Your task to perform on an android device: empty trash in google photos Image 0: 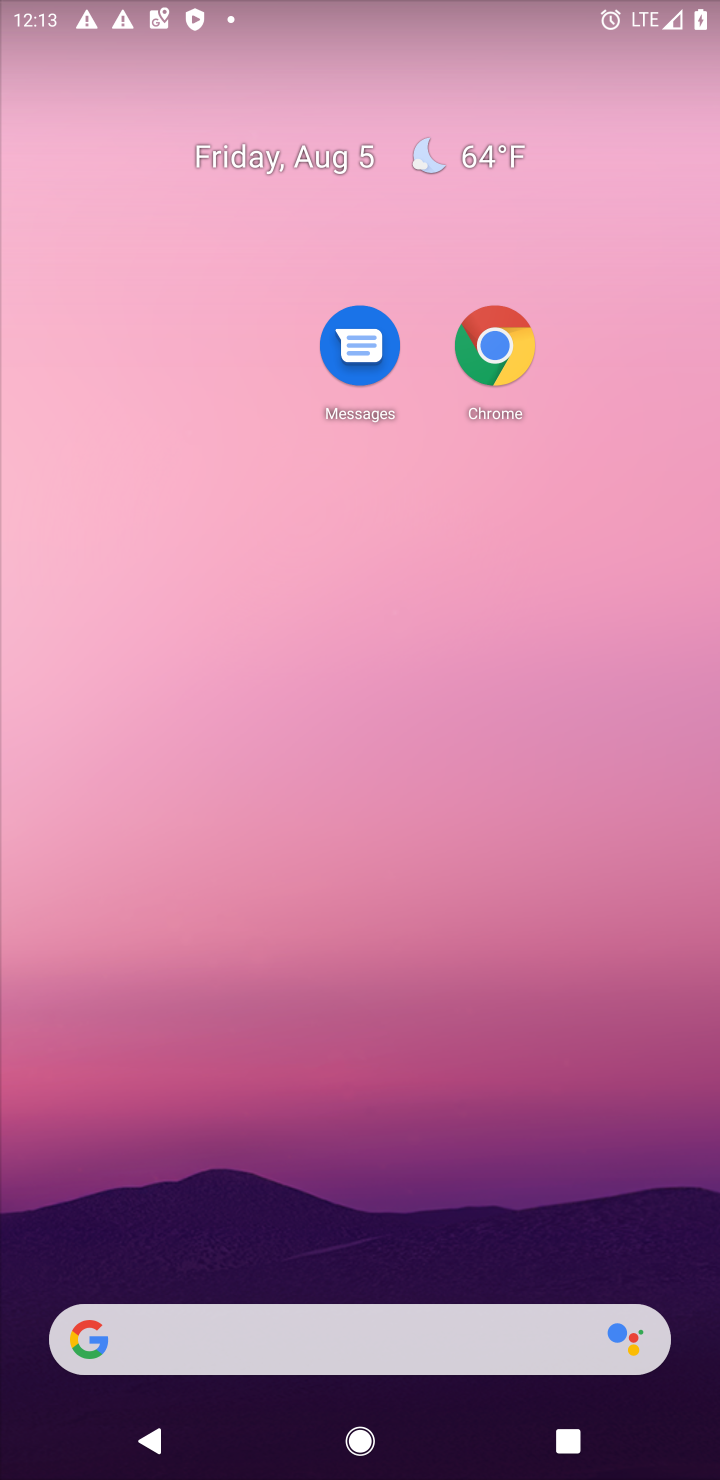
Step 0: drag from (379, 874) to (364, 19)
Your task to perform on an android device: empty trash in google photos Image 1: 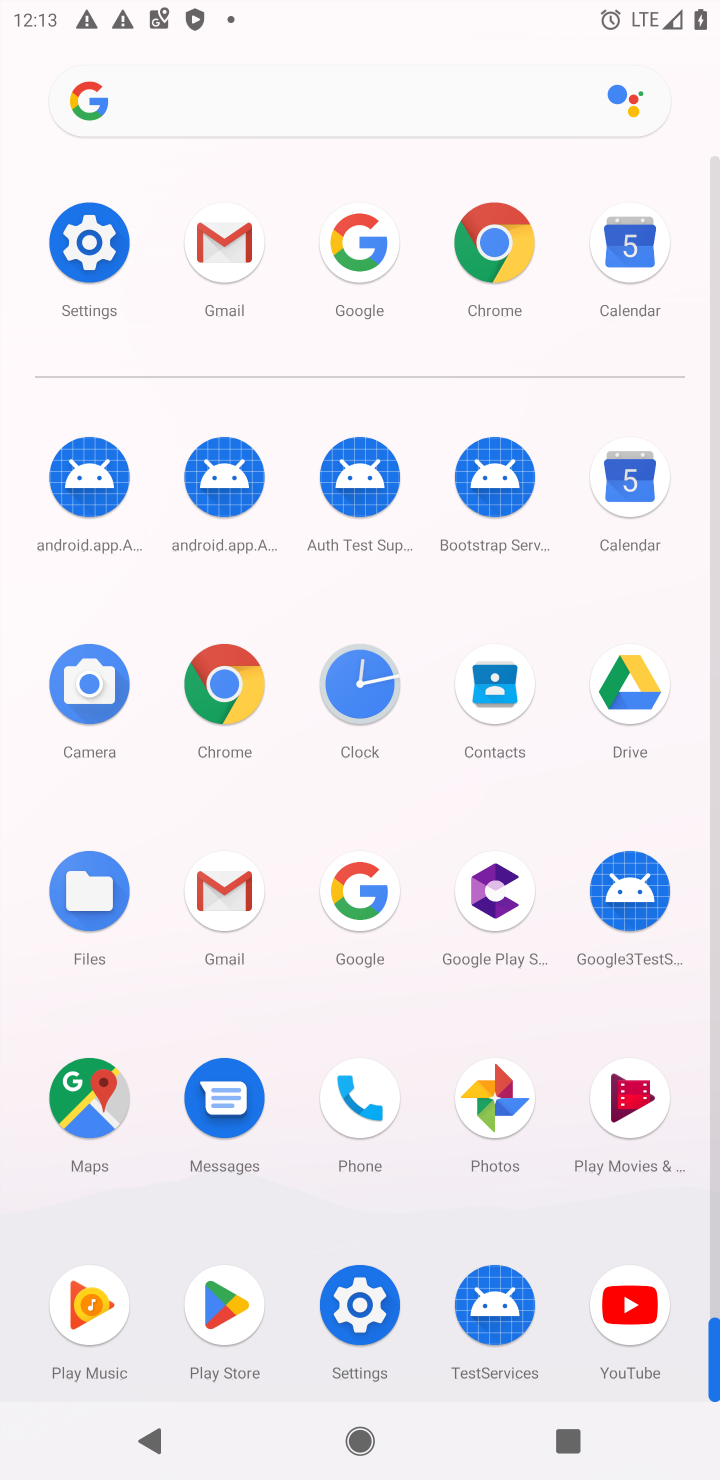
Step 1: click (487, 1095)
Your task to perform on an android device: empty trash in google photos Image 2: 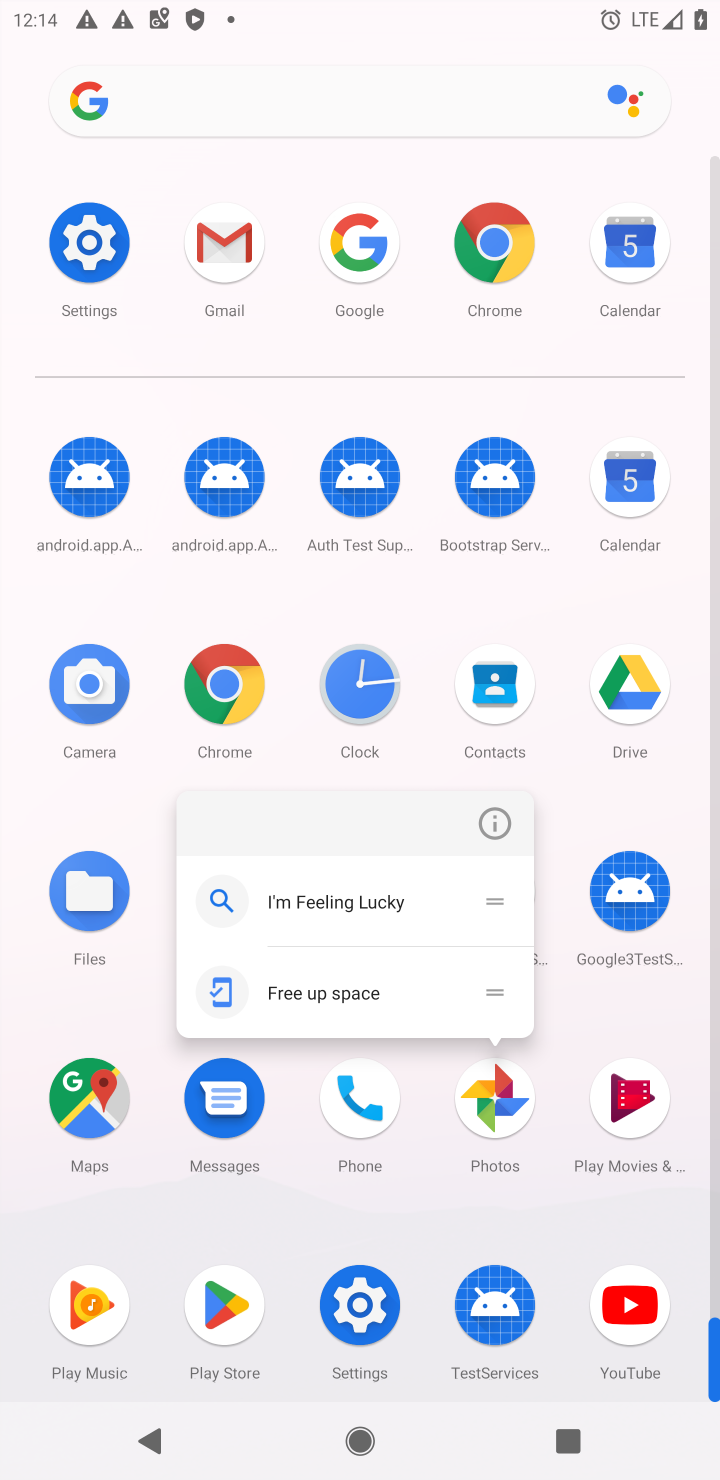
Step 2: click (499, 1093)
Your task to perform on an android device: empty trash in google photos Image 3: 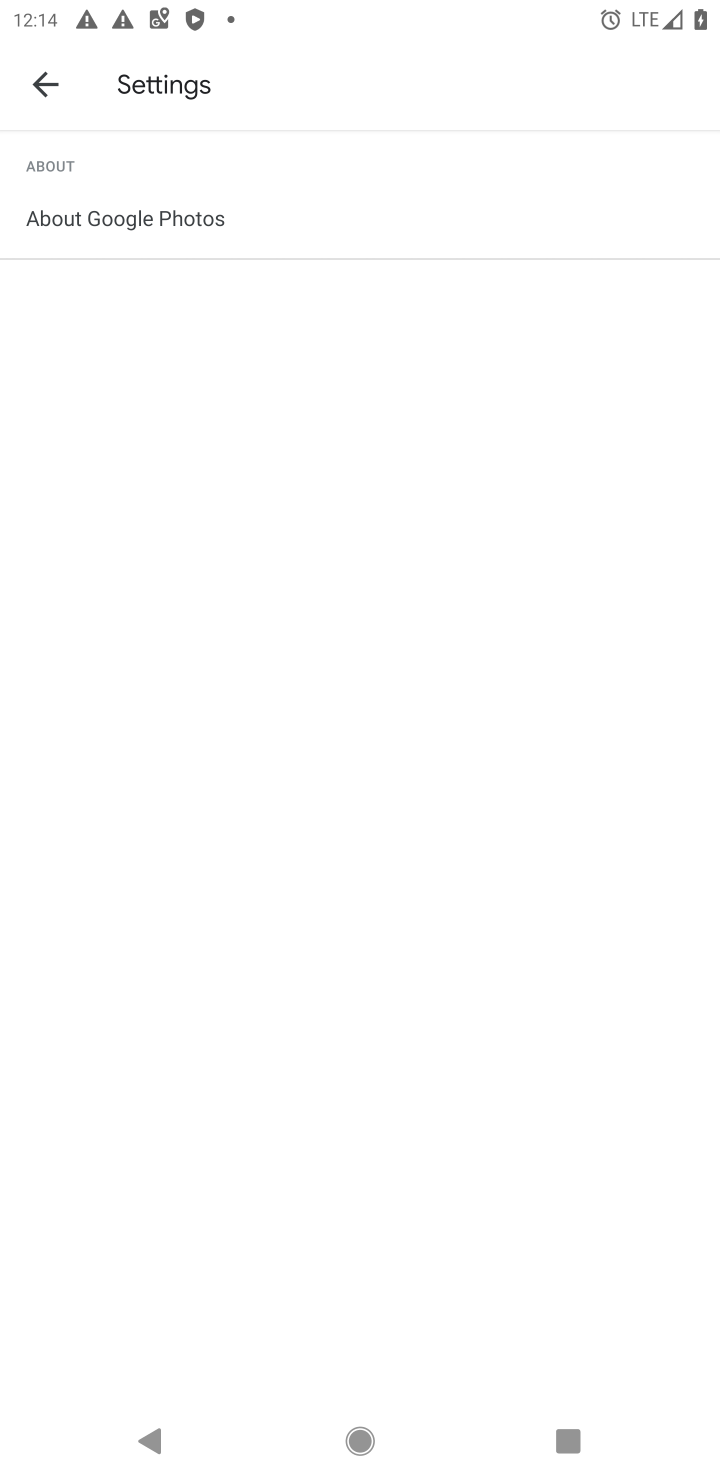
Step 3: click (50, 88)
Your task to perform on an android device: empty trash in google photos Image 4: 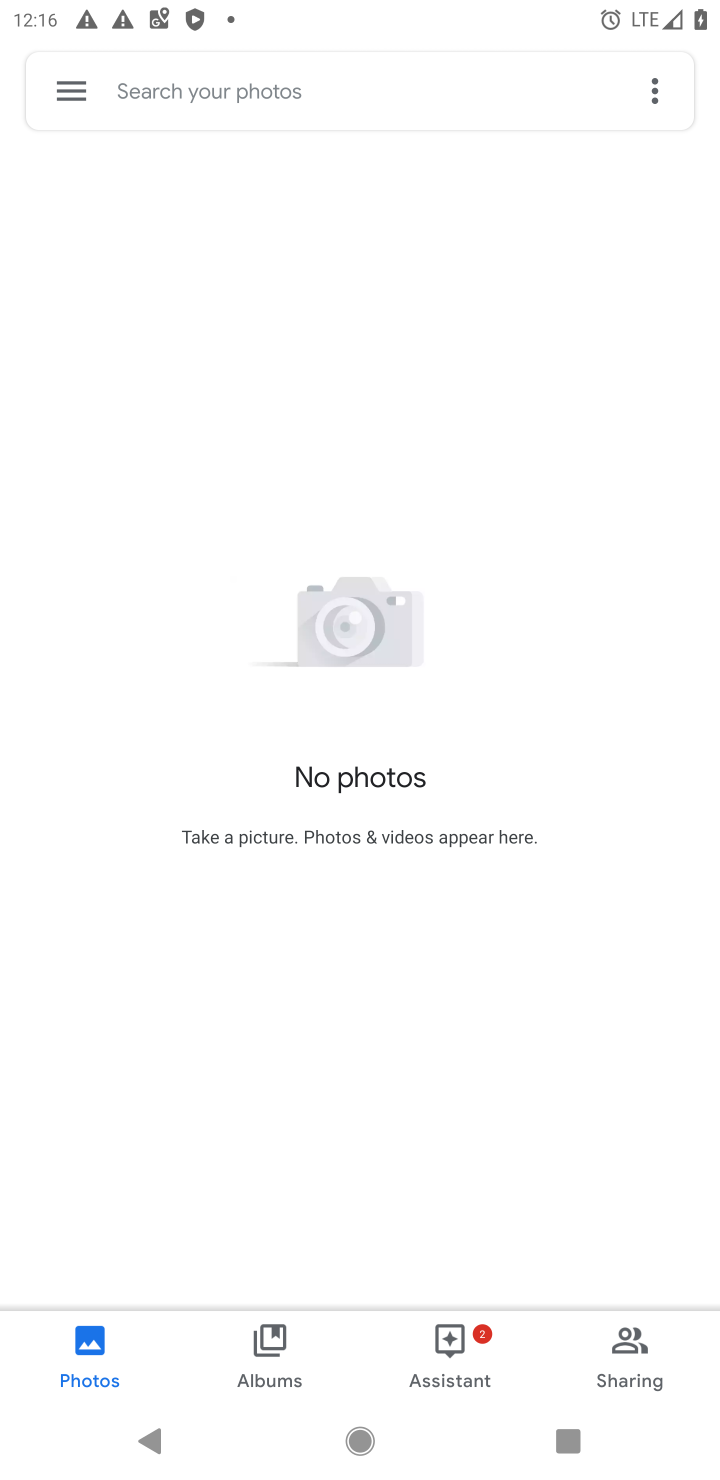
Step 4: click (52, 85)
Your task to perform on an android device: empty trash in google photos Image 5: 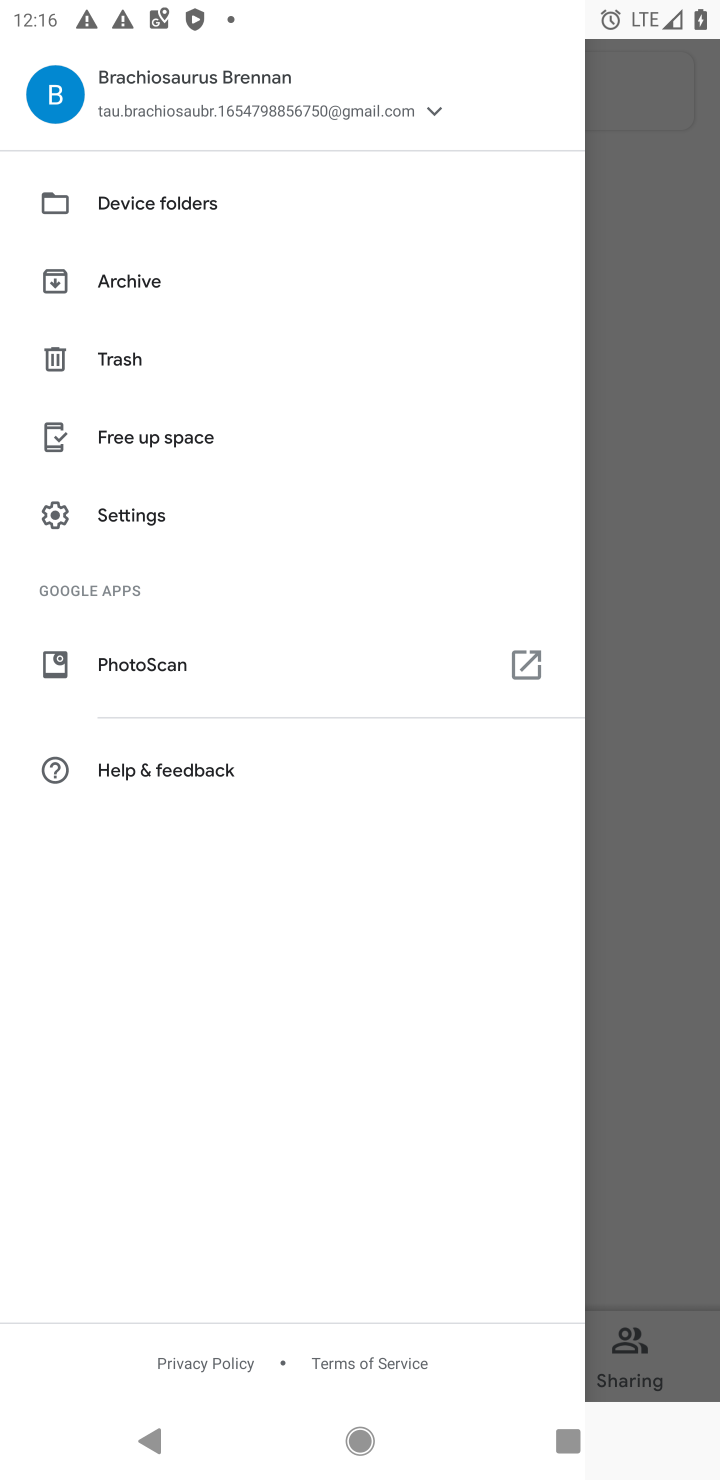
Step 5: click (134, 373)
Your task to perform on an android device: empty trash in google photos Image 6: 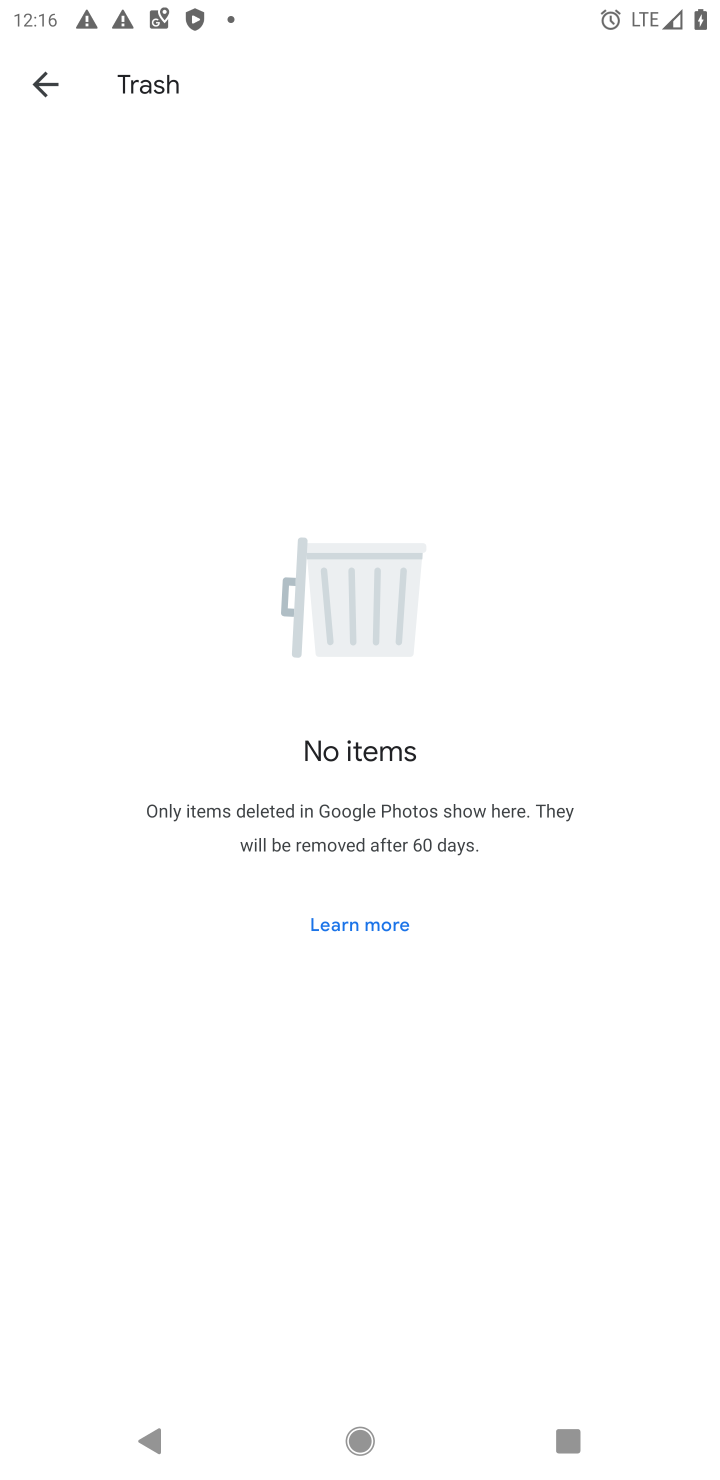
Step 6: task complete